Your task to perform on an android device: Open calendar and show me the second week of next month Image 0: 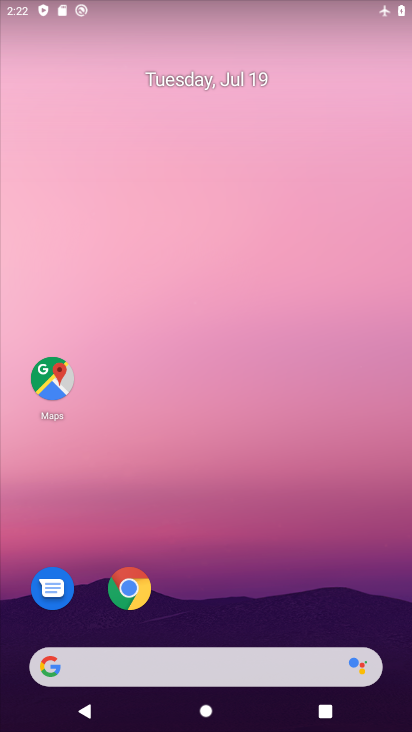
Step 0: press home button
Your task to perform on an android device: Open calendar and show me the second week of next month Image 1: 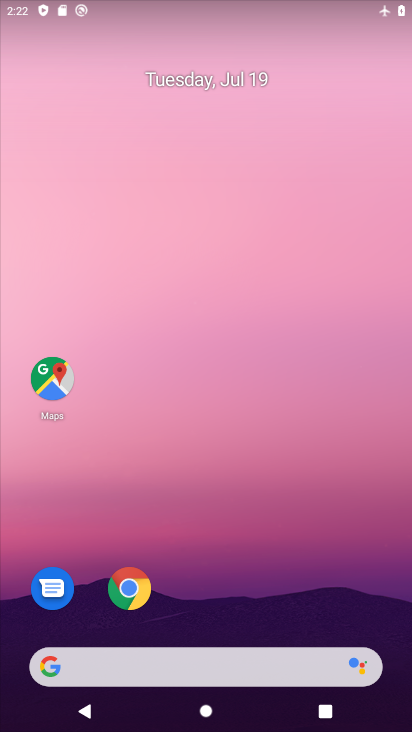
Step 1: drag from (232, 621) to (257, 131)
Your task to perform on an android device: Open calendar and show me the second week of next month Image 2: 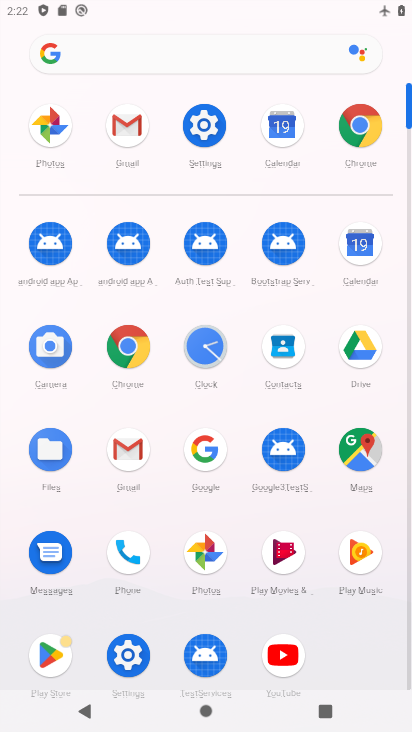
Step 2: click (361, 254)
Your task to perform on an android device: Open calendar and show me the second week of next month Image 3: 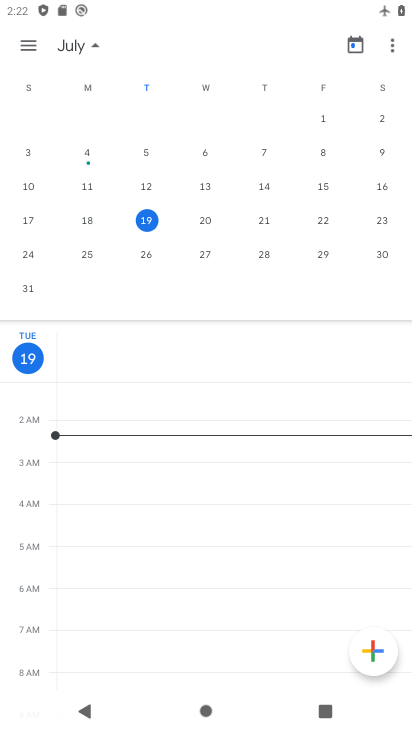
Step 3: drag from (326, 188) to (45, 190)
Your task to perform on an android device: Open calendar and show me the second week of next month Image 4: 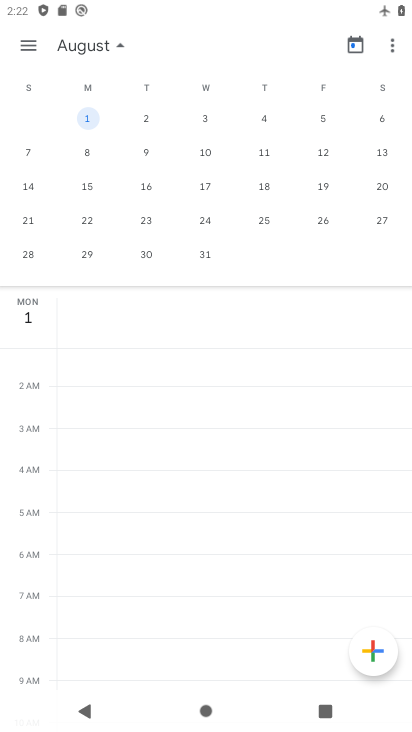
Step 4: click (96, 151)
Your task to perform on an android device: Open calendar and show me the second week of next month Image 5: 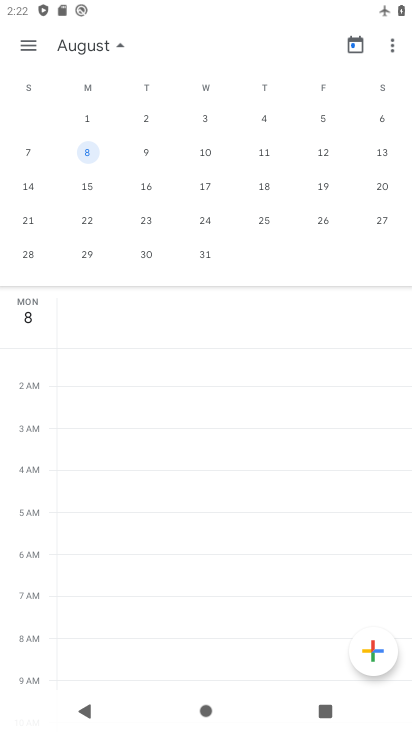
Step 5: click (150, 154)
Your task to perform on an android device: Open calendar and show me the second week of next month Image 6: 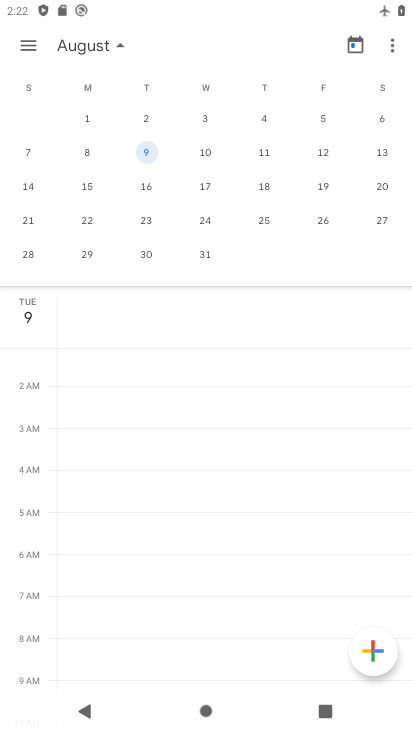
Step 6: click (216, 155)
Your task to perform on an android device: Open calendar and show me the second week of next month Image 7: 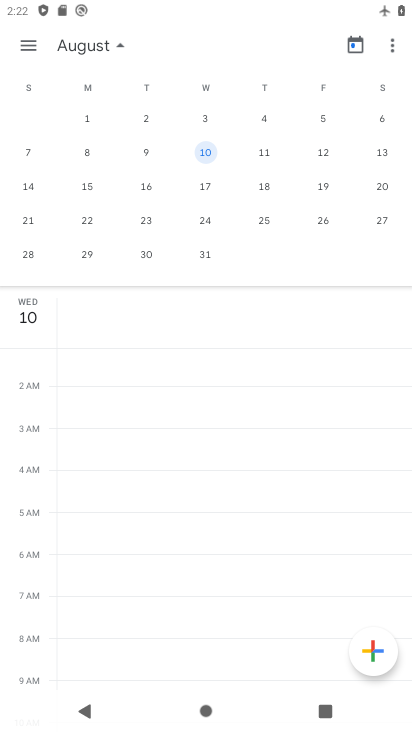
Step 7: click (252, 151)
Your task to perform on an android device: Open calendar and show me the second week of next month Image 8: 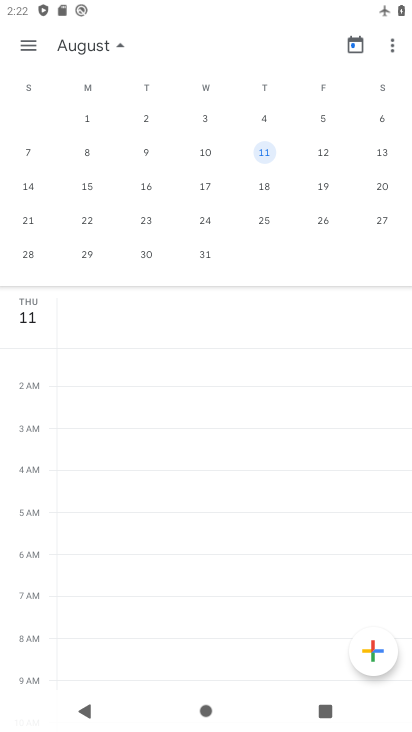
Step 8: click (327, 157)
Your task to perform on an android device: Open calendar and show me the second week of next month Image 9: 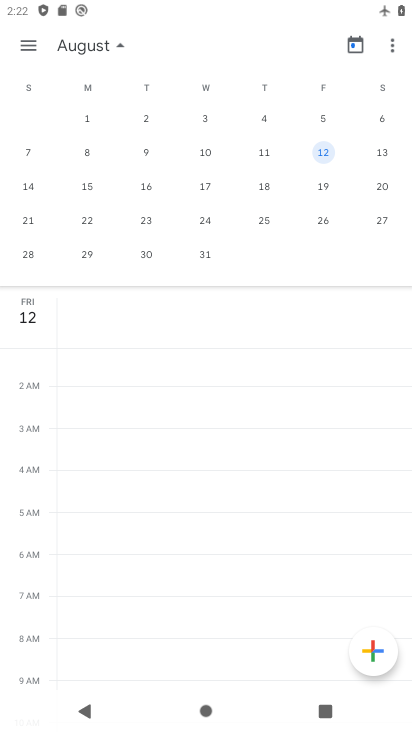
Step 9: click (381, 155)
Your task to perform on an android device: Open calendar and show me the second week of next month Image 10: 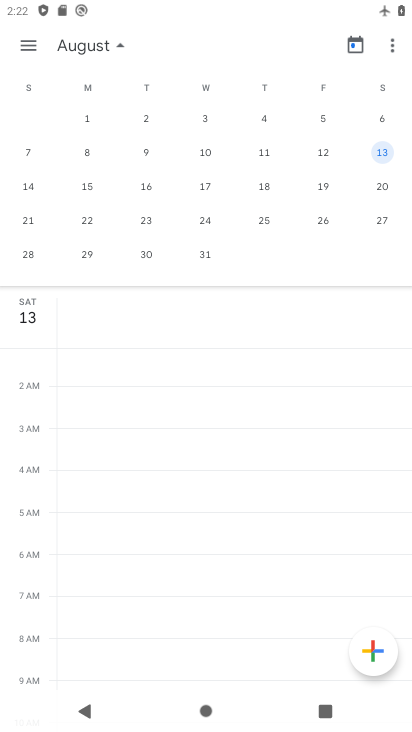
Step 10: click (29, 188)
Your task to perform on an android device: Open calendar and show me the second week of next month Image 11: 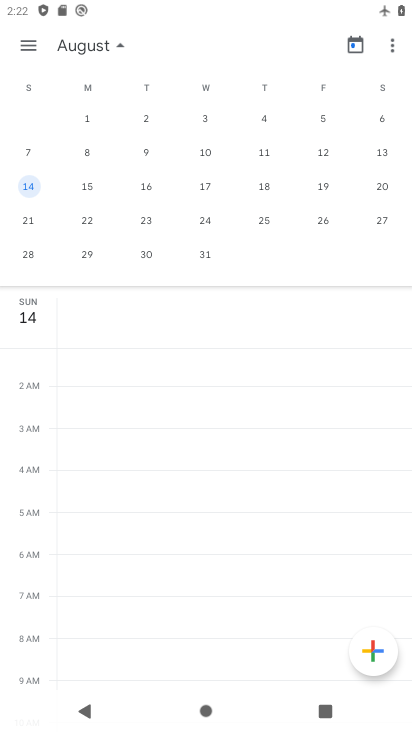
Step 11: task complete